Your task to perform on an android device: toggle improve location accuracy Image 0: 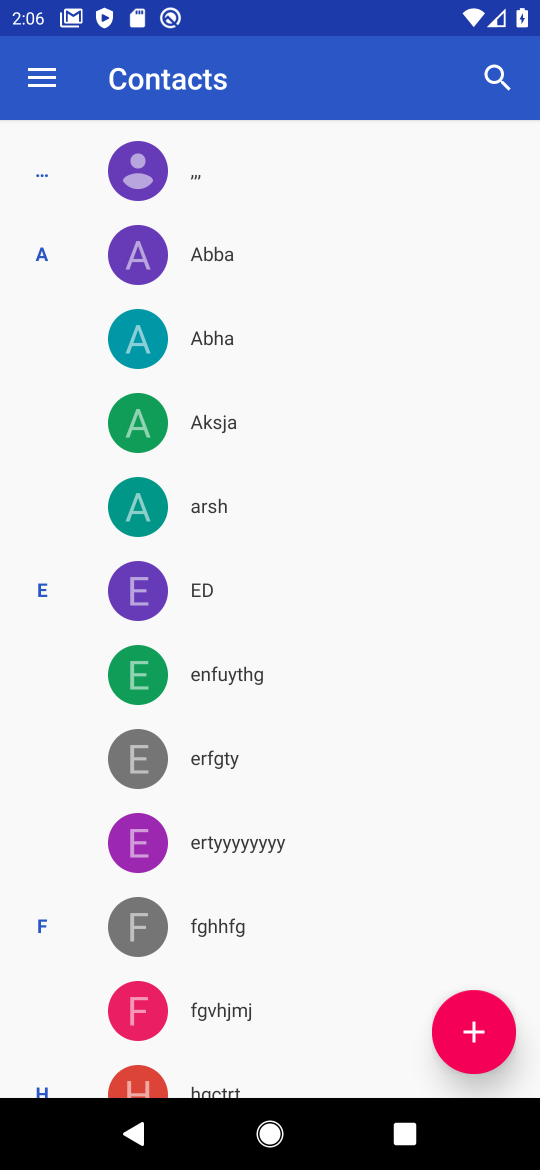
Step 0: press home button
Your task to perform on an android device: toggle improve location accuracy Image 1: 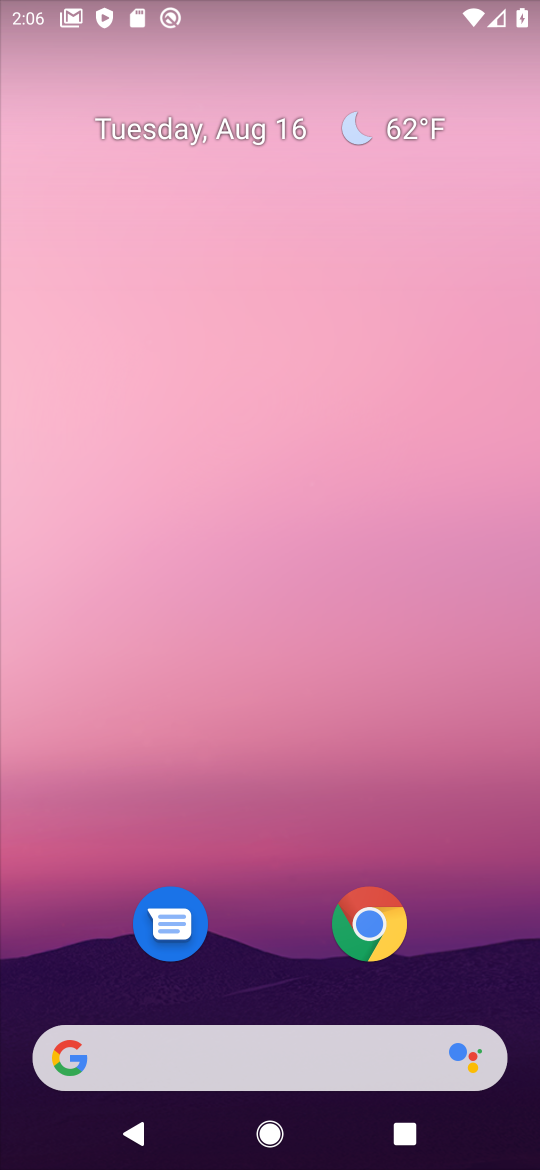
Step 1: drag from (488, 987) to (392, 261)
Your task to perform on an android device: toggle improve location accuracy Image 2: 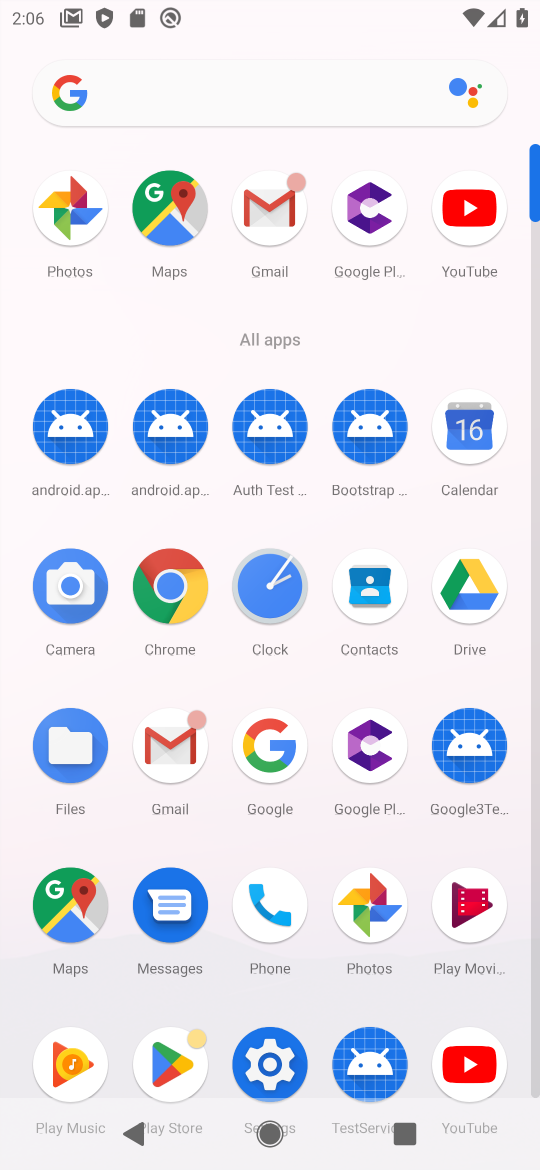
Step 2: click (268, 1061)
Your task to perform on an android device: toggle improve location accuracy Image 3: 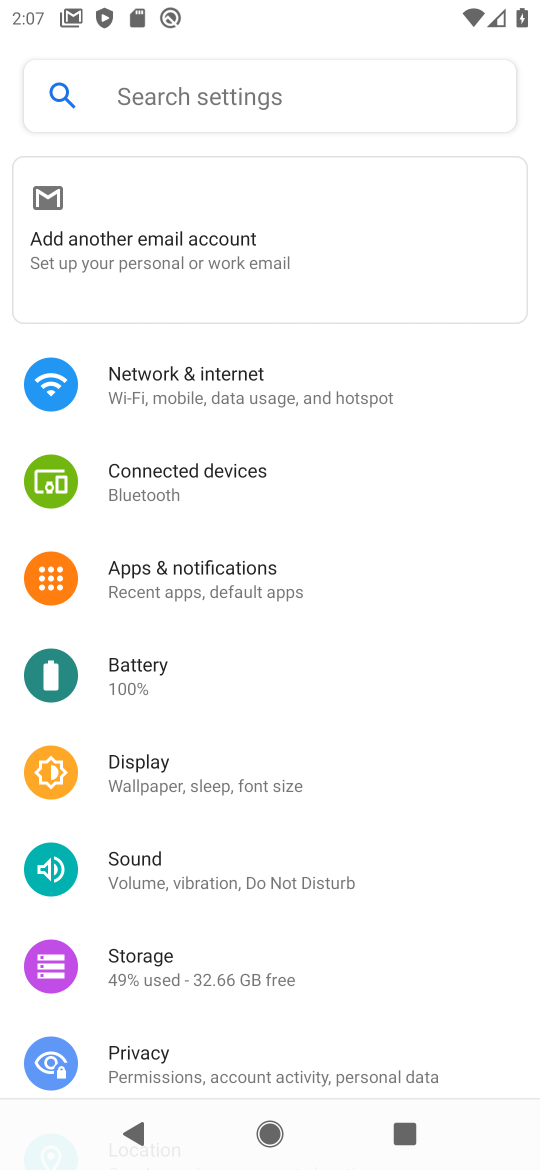
Step 3: drag from (398, 989) to (370, 377)
Your task to perform on an android device: toggle improve location accuracy Image 4: 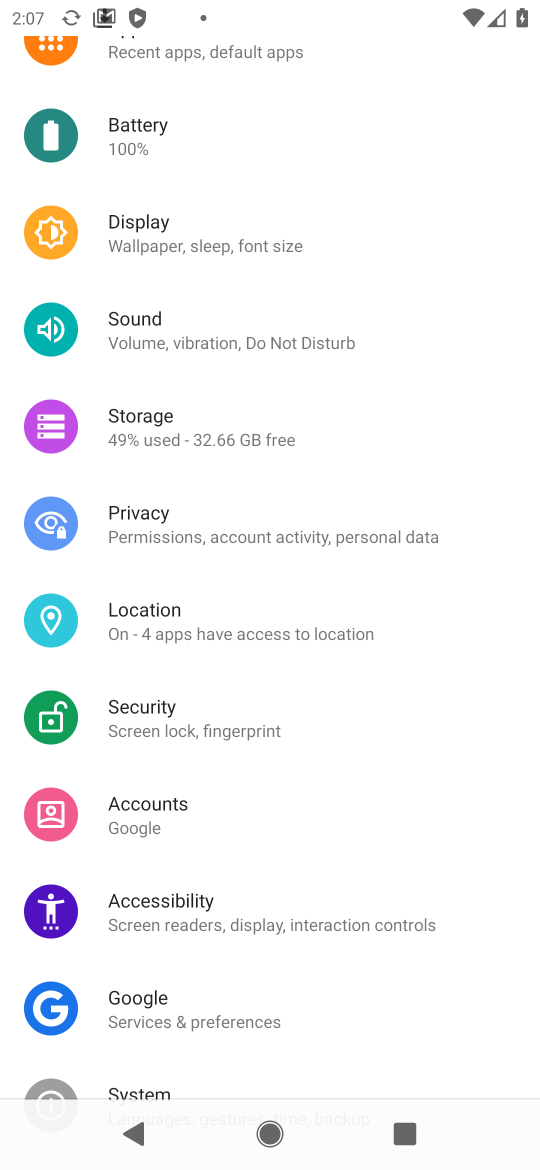
Step 4: click (155, 645)
Your task to perform on an android device: toggle improve location accuracy Image 5: 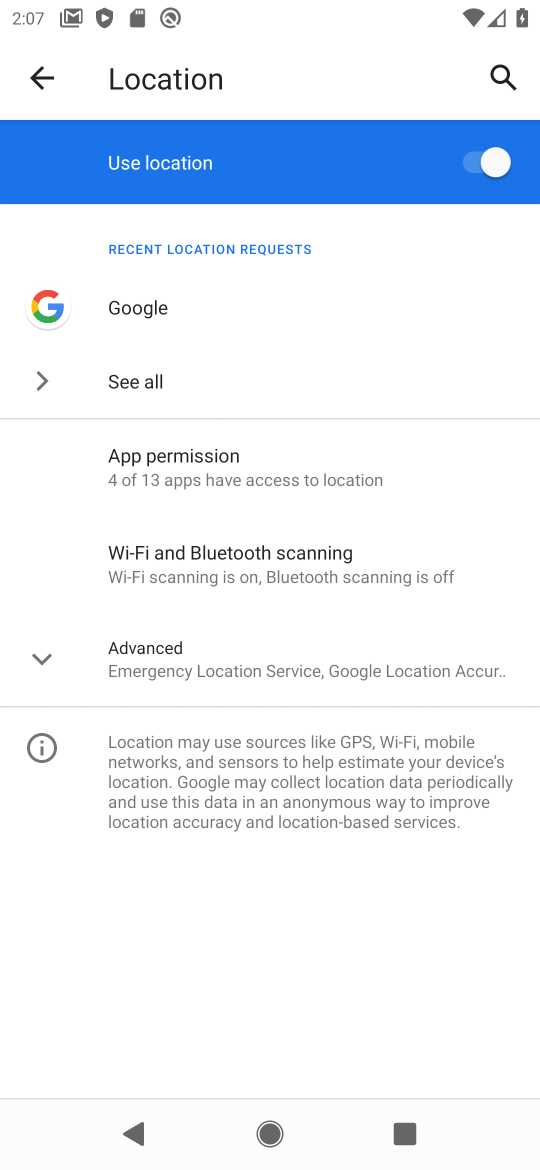
Step 5: click (51, 655)
Your task to perform on an android device: toggle improve location accuracy Image 6: 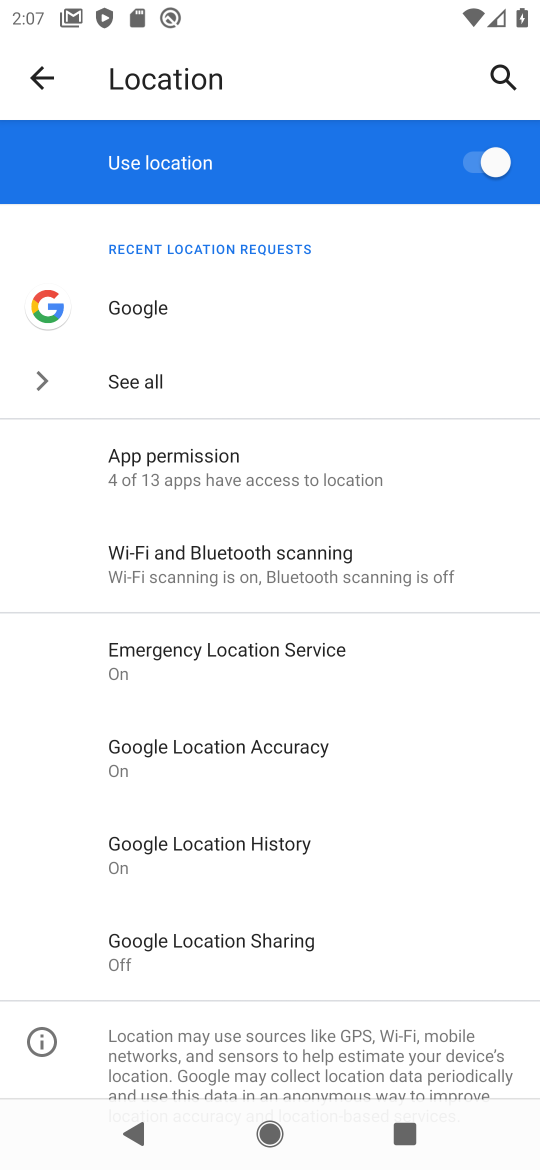
Step 6: click (220, 740)
Your task to perform on an android device: toggle improve location accuracy Image 7: 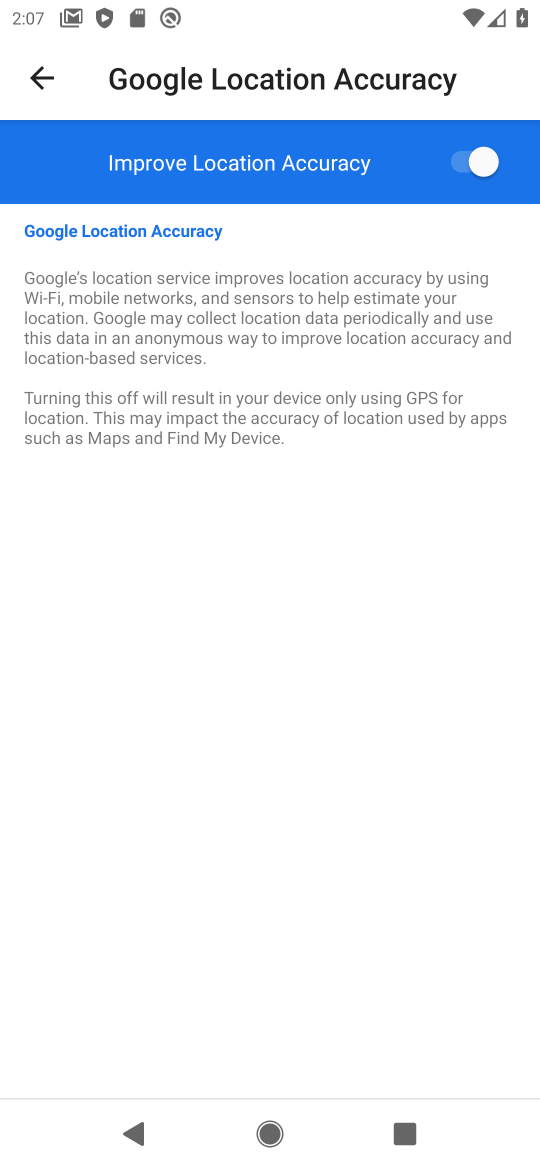
Step 7: click (458, 156)
Your task to perform on an android device: toggle improve location accuracy Image 8: 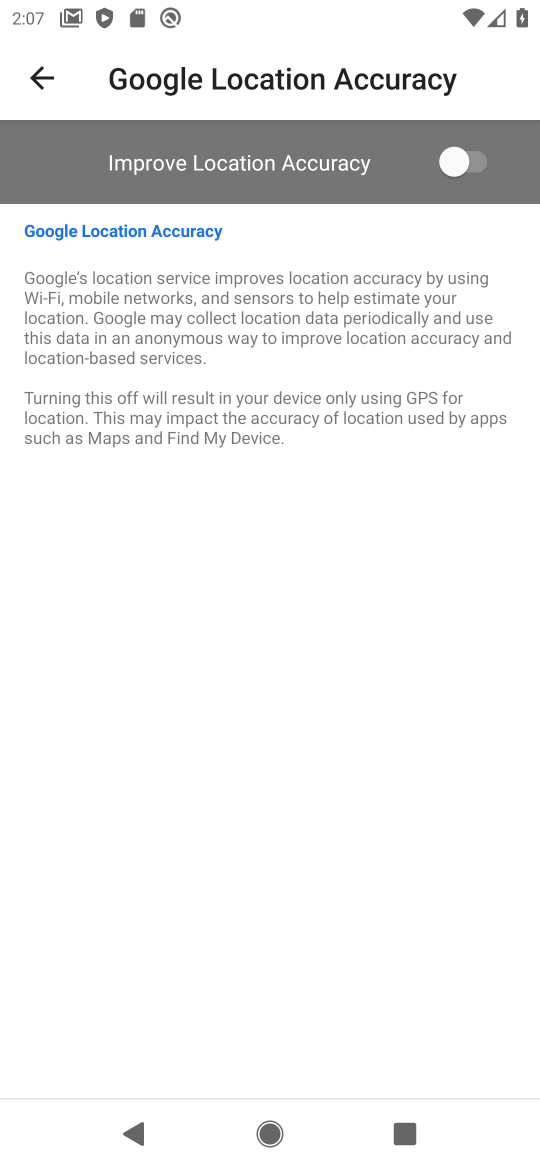
Step 8: task complete